Your task to perform on an android device: Go to sound settings Image 0: 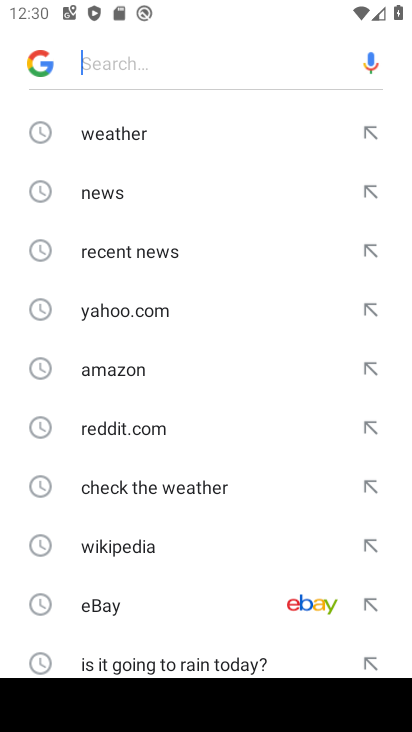
Step 0: press home button
Your task to perform on an android device: Go to sound settings Image 1: 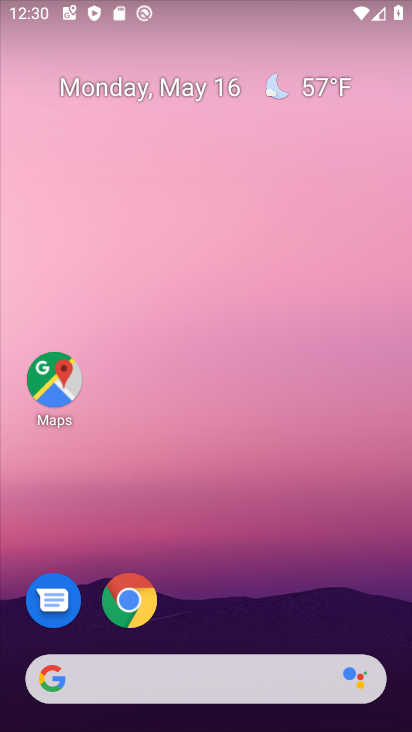
Step 1: drag from (246, 605) to (308, 64)
Your task to perform on an android device: Go to sound settings Image 2: 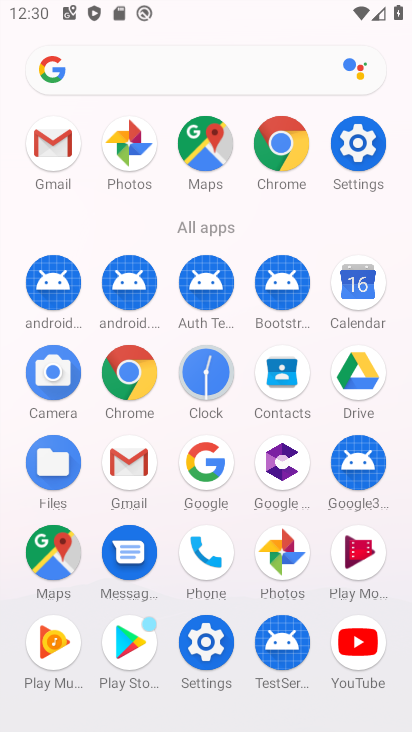
Step 2: click (360, 144)
Your task to perform on an android device: Go to sound settings Image 3: 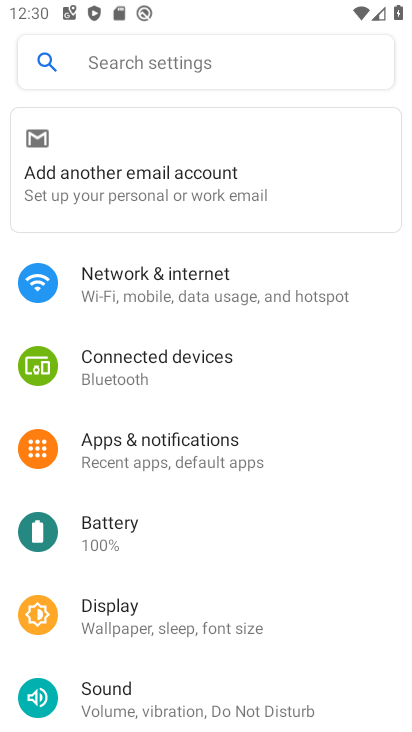
Step 3: click (135, 695)
Your task to perform on an android device: Go to sound settings Image 4: 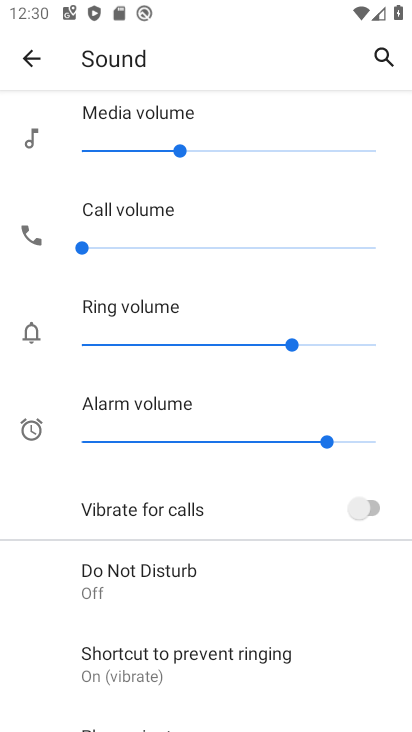
Step 4: task complete